Your task to perform on an android device: check storage Image 0: 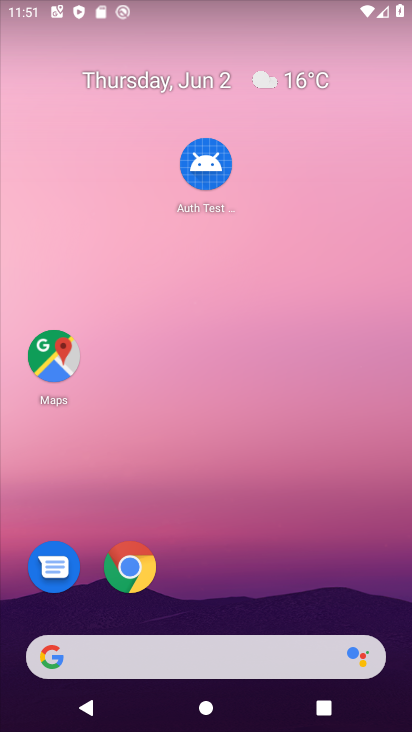
Step 0: drag from (207, 607) to (239, 31)
Your task to perform on an android device: check storage Image 1: 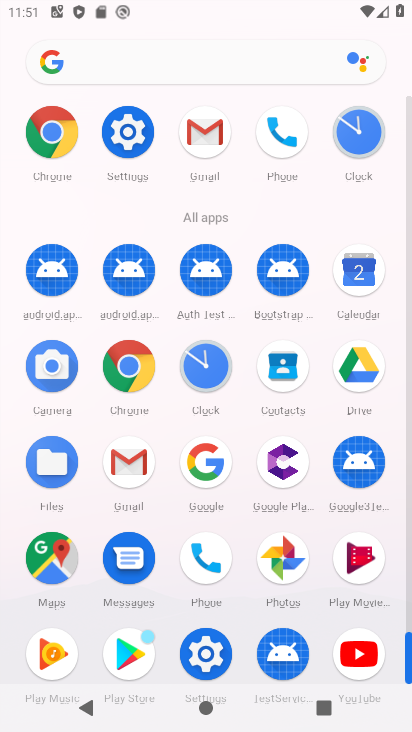
Step 1: click (129, 139)
Your task to perform on an android device: check storage Image 2: 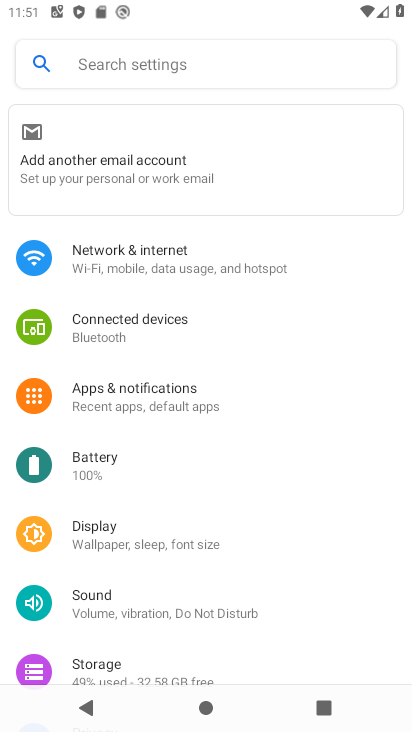
Step 2: drag from (132, 566) to (186, 183)
Your task to perform on an android device: check storage Image 3: 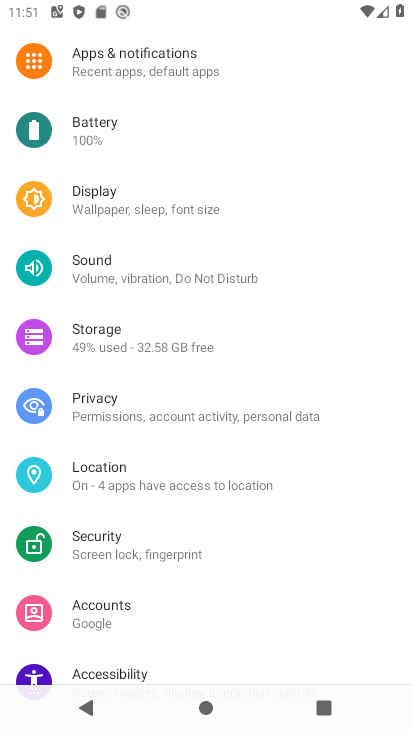
Step 3: click (155, 357)
Your task to perform on an android device: check storage Image 4: 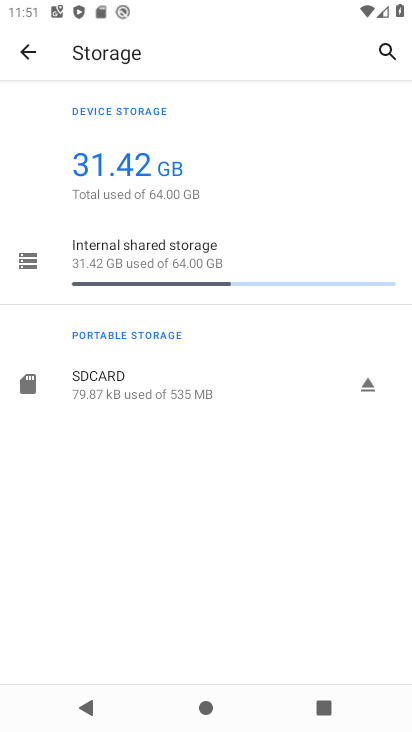
Step 4: task complete